Your task to perform on an android device: clear history in the chrome app Image 0: 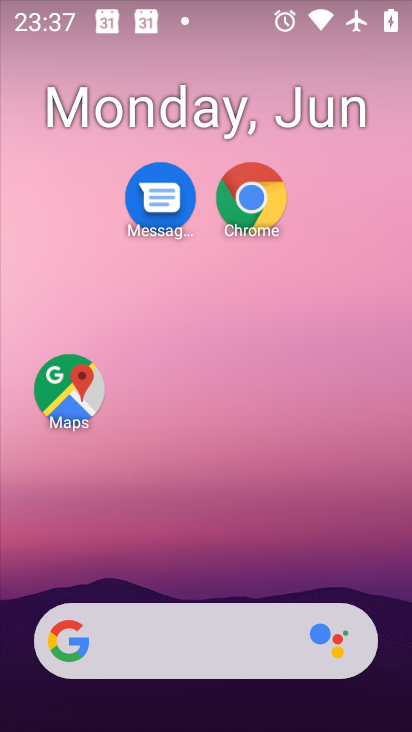
Step 0: click (231, 215)
Your task to perform on an android device: clear history in the chrome app Image 1: 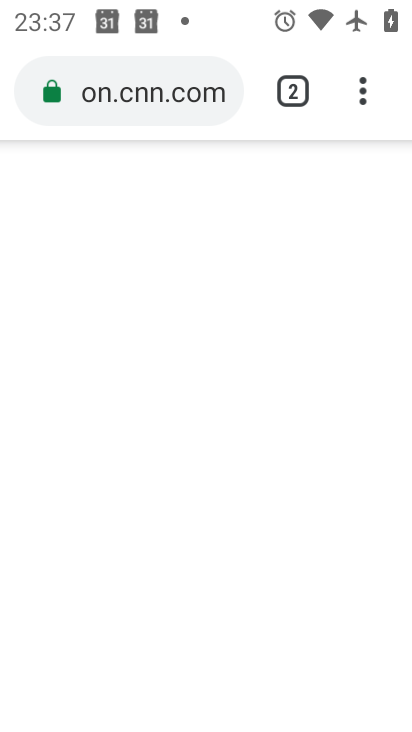
Step 1: click (354, 104)
Your task to perform on an android device: clear history in the chrome app Image 2: 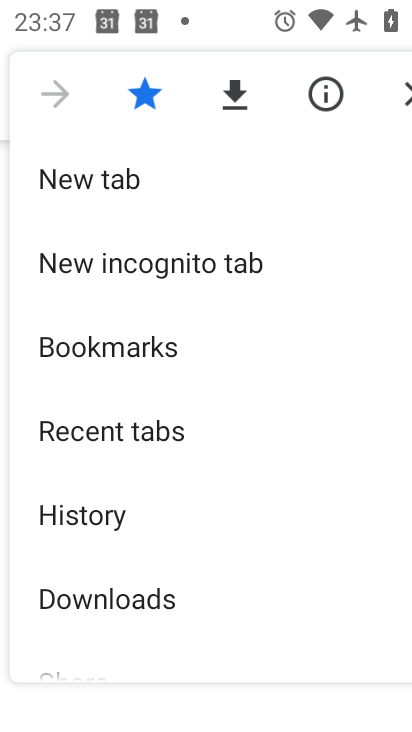
Step 2: drag from (190, 582) to (187, 431)
Your task to perform on an android device: clear history in the chrome app Image 3: 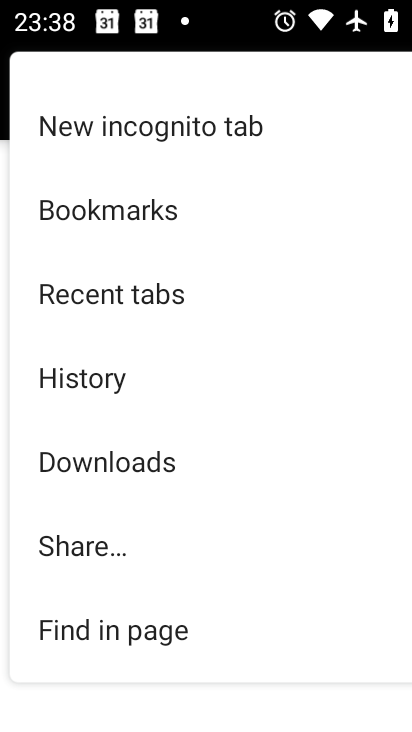
Step 3: click (119, 371)
Your task to perform on an android device: clear history in the chrome app Image 4: 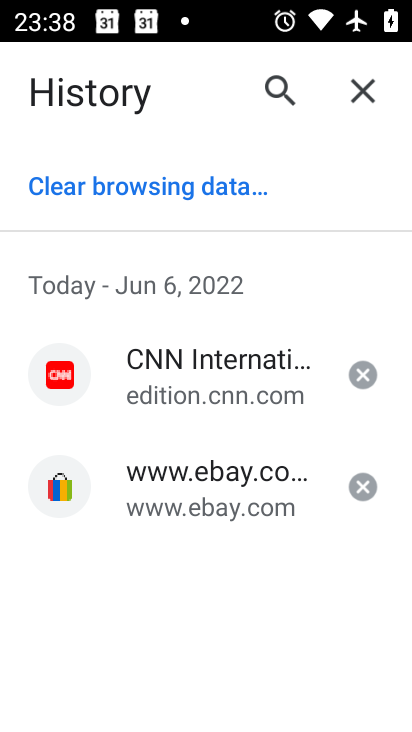
Step 4: click (147, 196)
Your task to perform on an android device: clear history in the chrome app Image 5: 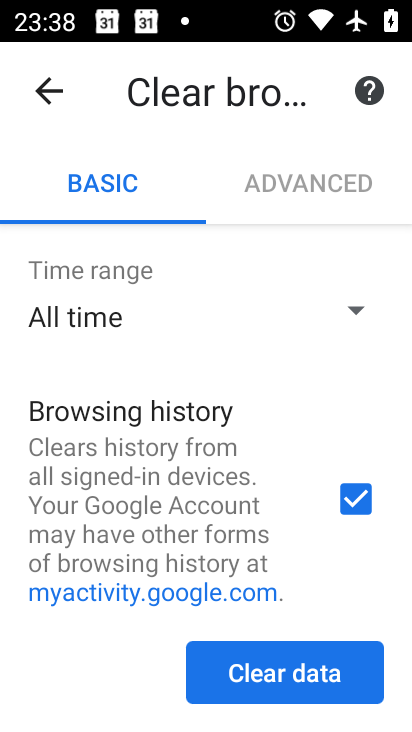
Step 5: drag from (301, 564) to (301, 124)
Your task to perform on an android device: clear history in the chrome app Image 6: 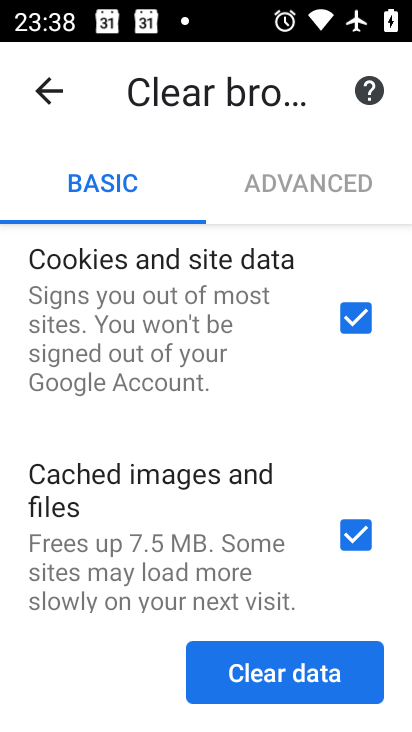
Step 6: click (302, 663)
Your task to perform on an android device: clear history in the chrome app Image 7: 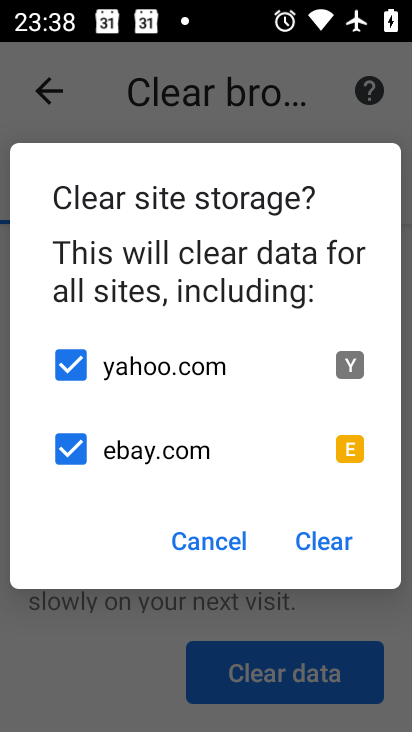
Step 7: click (304, 531)
Your task to perform on an android device: clear history in the chrome app Image 8: 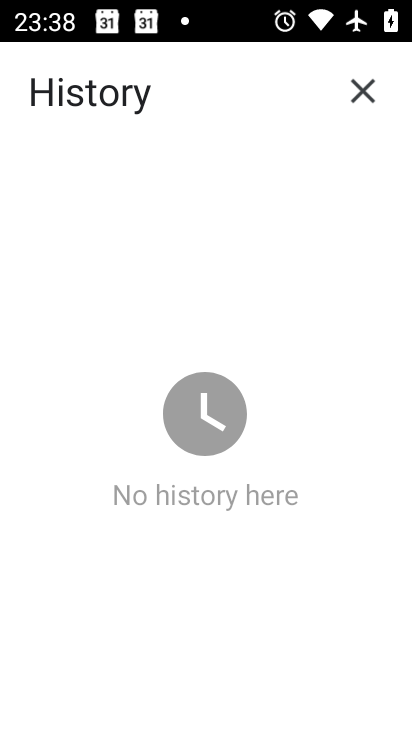
Step 8: task complete